Your task to perform on an android device: turn off sleep mode Image 0: 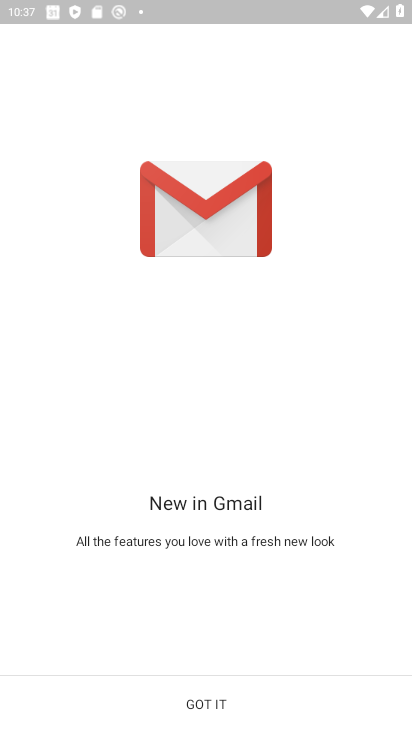
Step 0: click (223, 705)
Your task to perform on an android device: turn off sleep mode Image 1: 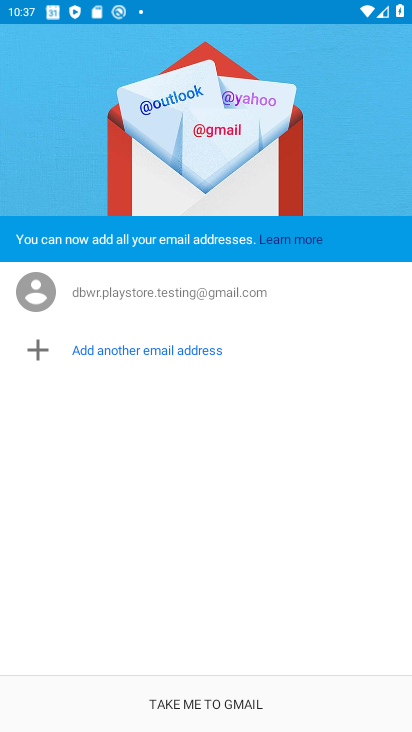
Step 1: click (223, 705)
Your task to perform on an android device: turn off sleep mode Image 2: 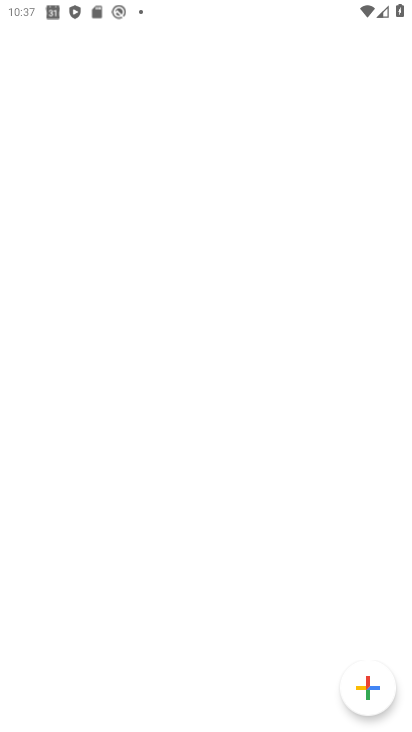
Step 2: press back button
Your task to perform on an android device: turn off sleep mode Image 3: 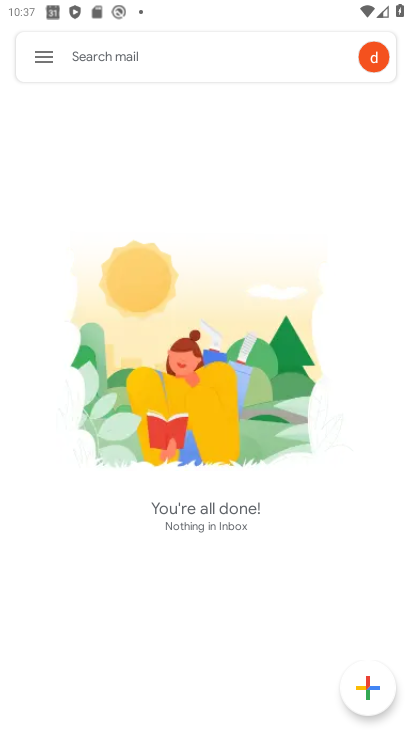
Step 3: press home button
Your task to perform on an android device: turn off sleep mode Image 4: 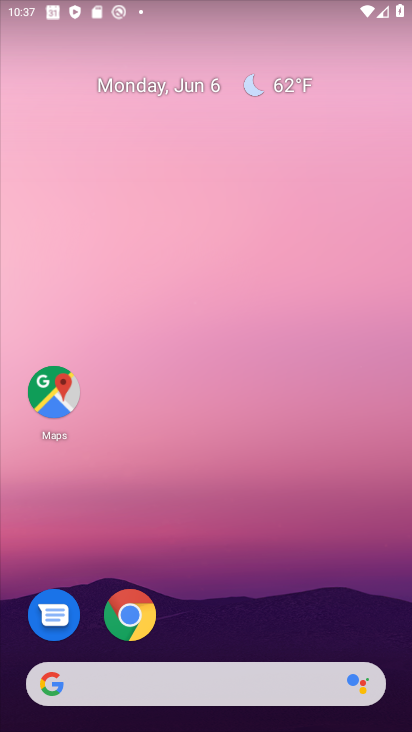
Step 4: drag from (267, 671) to (140, 116)
Your task to perform on an android device: turn off sleep mode Image 5: 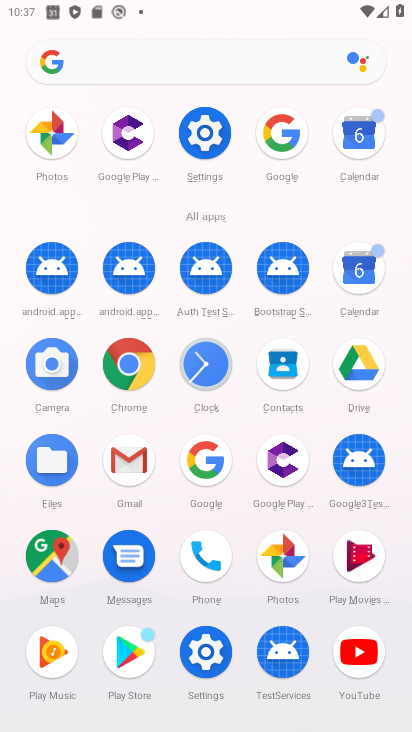
Step 5: click (203, 131)
Your task to perform on an android device: turn off sleep mode Image 6: 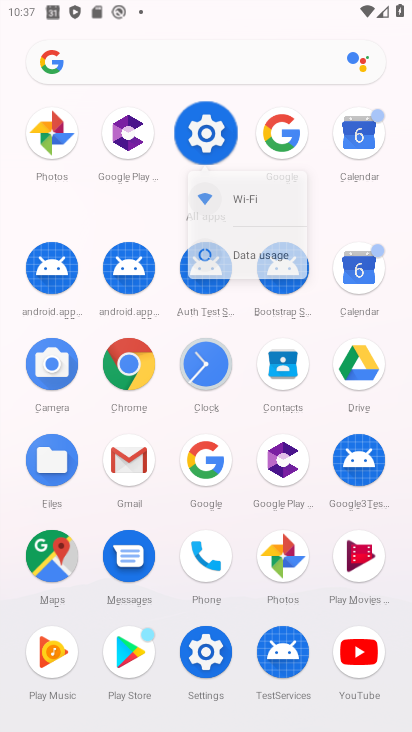
Step 6: click (204, 131)
Your task to perform on an android device: turn off sleep mode Image 7: 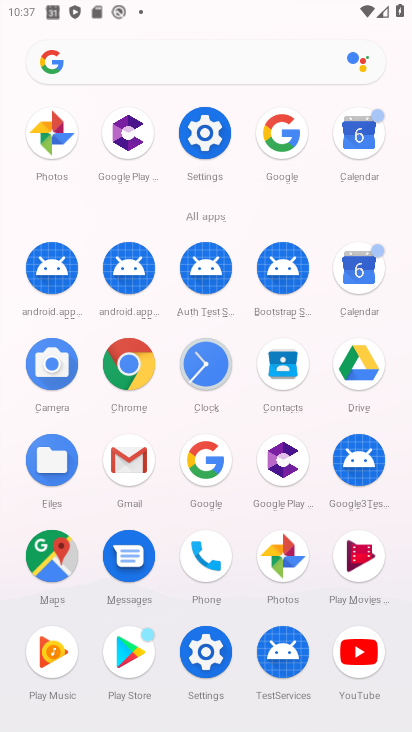
Step 7: click (204, 131)
Your task to perform on an android device: turn off sleep mode Image 8: 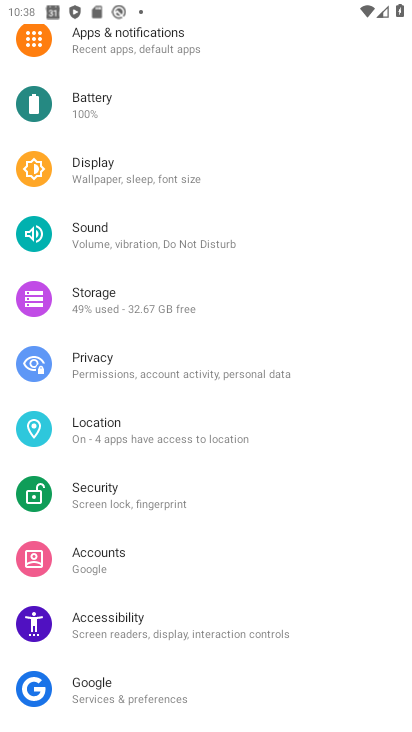
Step 8: click (110, 176)
Your task to perform on an android device: turn off sleep mode Image 9: 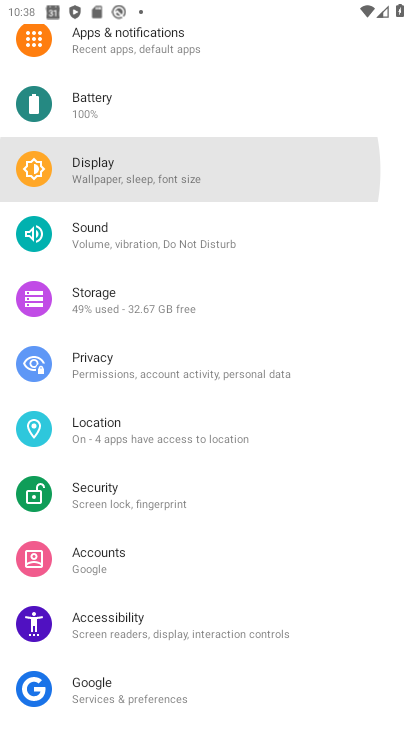
Step 9: click (111, 175)
Your task to perform on an android device: turn off sleep mode Image 10: 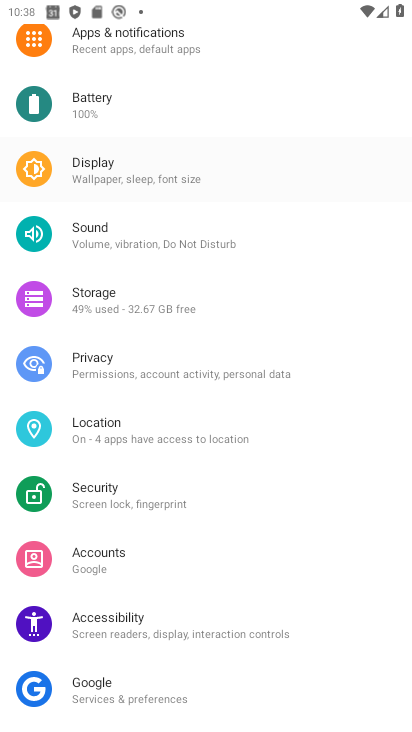
Step 10: click (111, 175)
Your task to perform on an android device: turn off sleep mode Image 11: 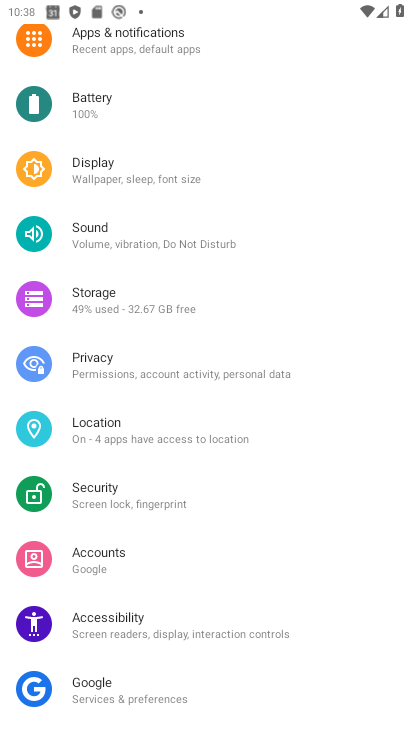
Step 11: click (111, 175)
Your task to perform on an android device: turn off sleep mode Image 12: 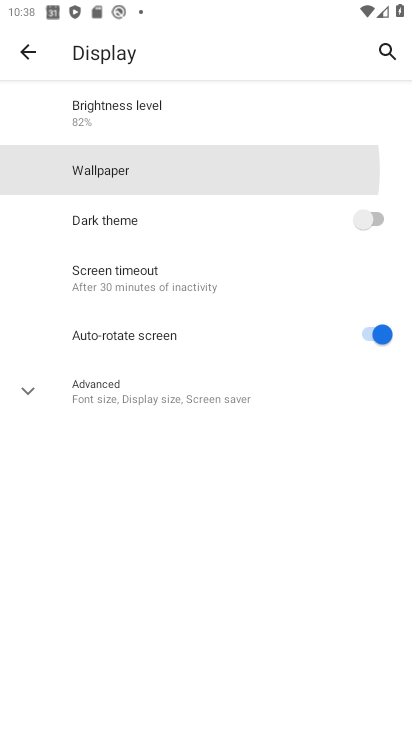
Step 12: click (111, 175)
Your task to perform on an android device: turn off sleep mode Image 13: 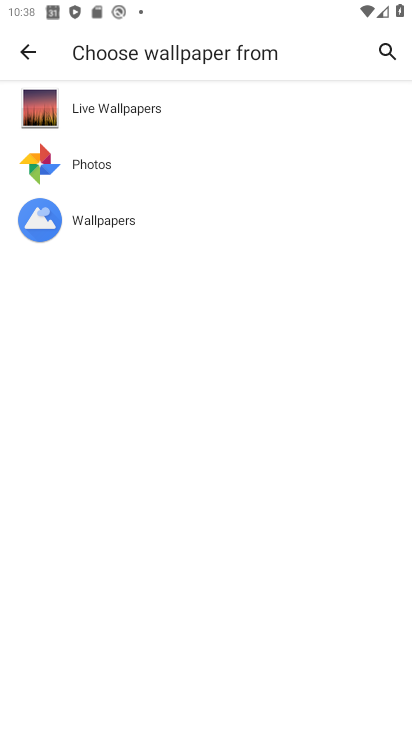
Step 13: click (26, 56)
Your task to perform on an android device: turn off sleep mode Image 14: 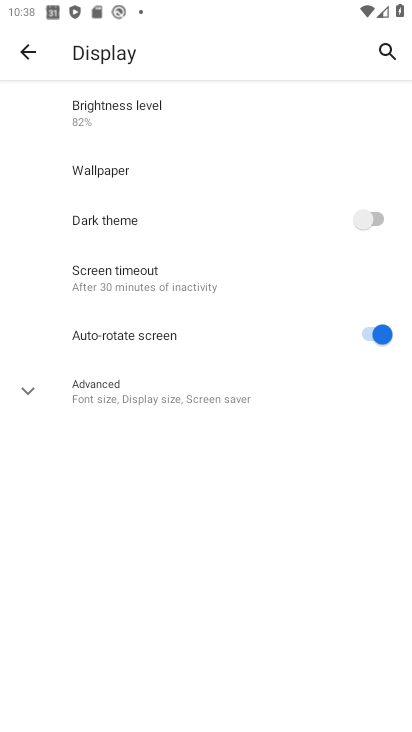
Step 14: click (108, 284)
Your task to perform on an android device: turn off sleep mode Image 15: 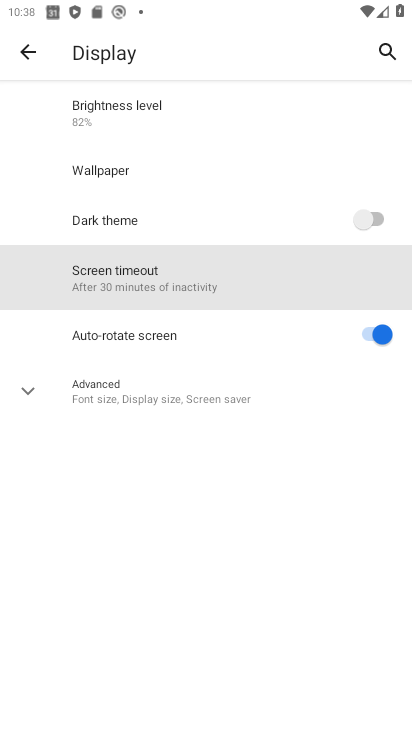
Step 15: click (108, 284)
Your task to perform on an android device: turn off sleep mode Image 16: 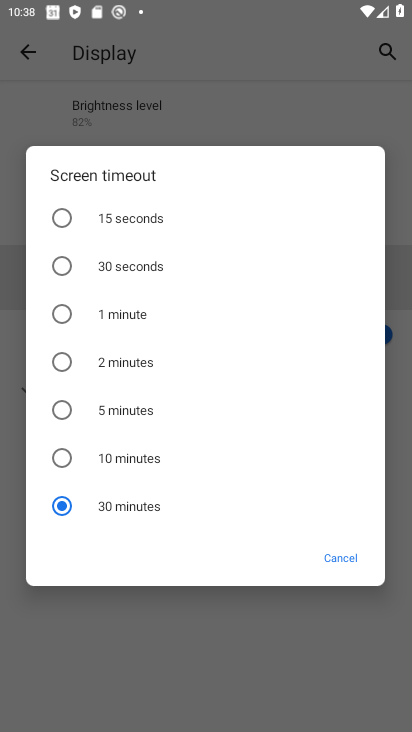
Step 16: click (115, 278)
Your task to perform on an android device: turn off sleep mode Image 17: 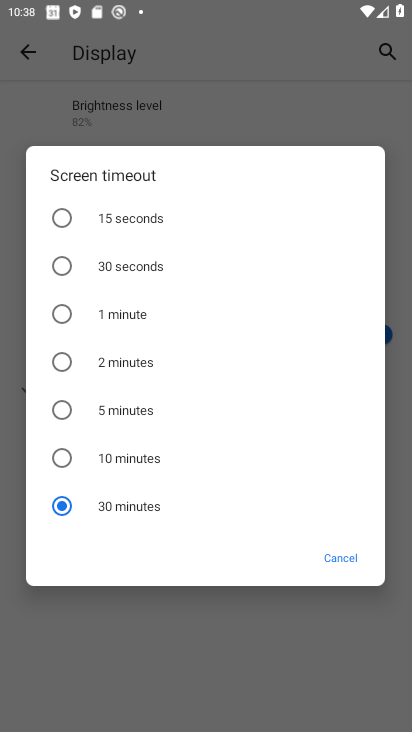
Step 17: click (59, 464)
Your task to perform on an android device: turn off sleep mode Image 18: 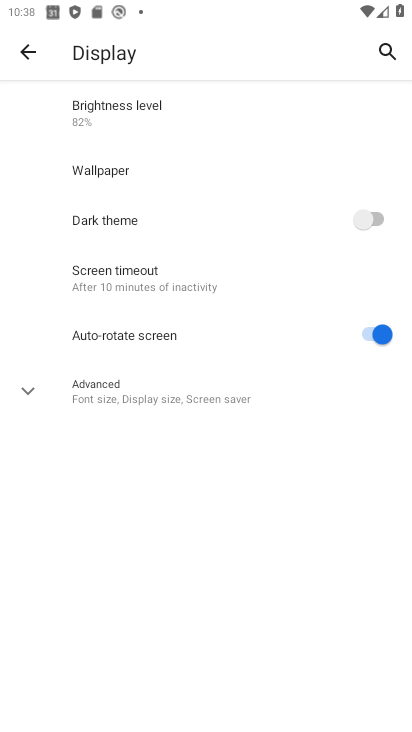
Step 18: task complete